Your task to perform on an android device: turn on bluetooth scan Image 0: 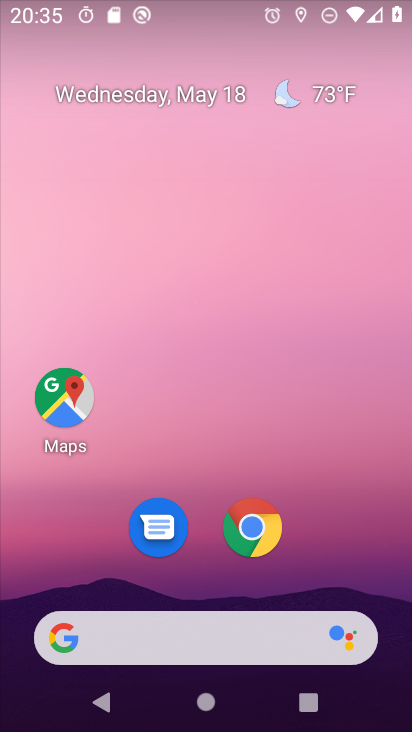
Step 0: click (324, 512)
Your task to perform on an android device: turn on bluetooth scan Image 1: 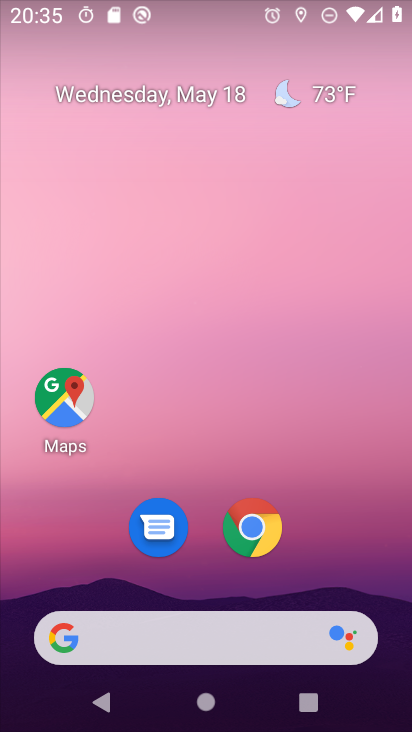
Step 1: drag from (386, 659) to (386, 176)
Your task to perform on an android device: turn on bluetooth scan Image 2: 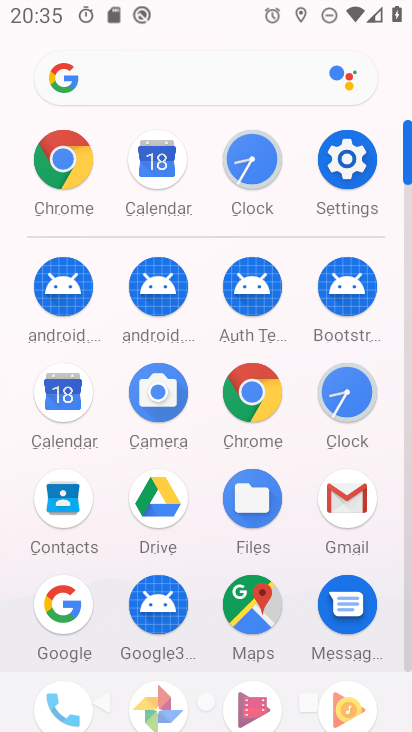
Step 2: click (357, 160)
Your task to perform on an android device: turn on bluetooth scan Image 3: 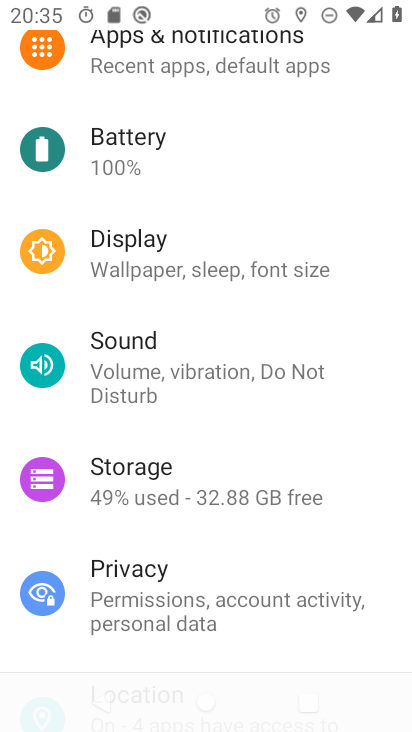
Step 3: drag from (304, 634) to (283, 49)
Your task to perform on an android device: turn on bluetooth scan Image 4: 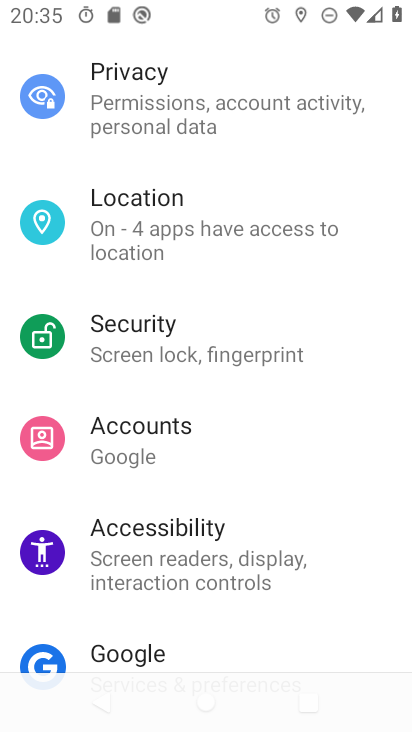
Step 4: click (144, 214)
Your task to perform on an android device: turn on bluetooth scan Image 5: 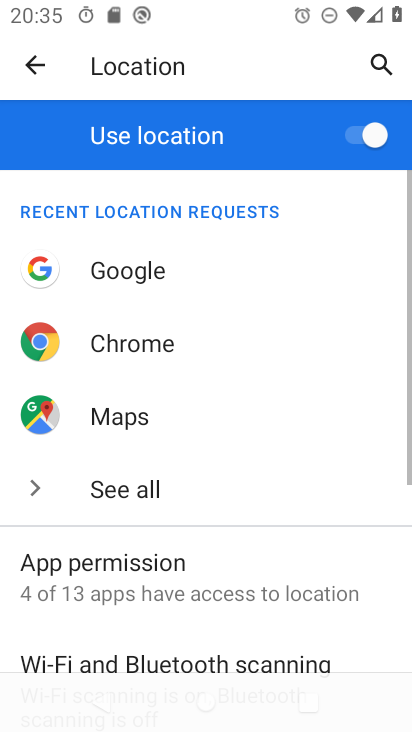
Step 5: drag from (305, 609) to (294, 259)
Your task to perform on an android device: turn on bluetooth scan Image 6: 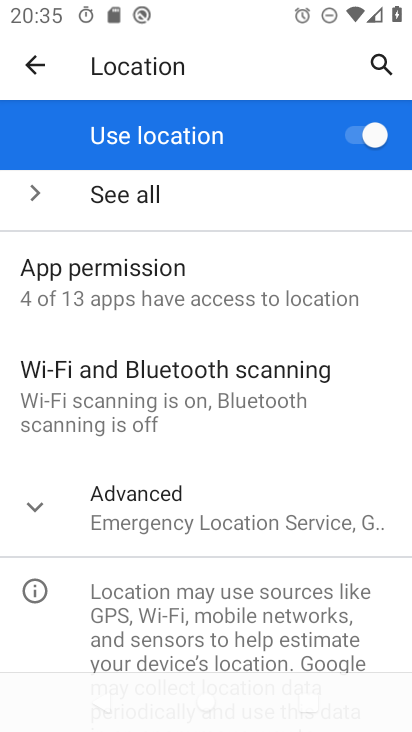
Step 6: click (44, 509)
Your task to perform on an android device: turn on bluetooth scan Image 7: 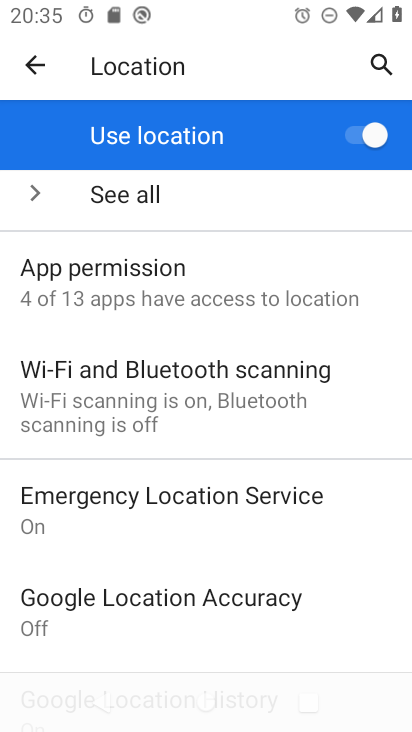
Step 7: click (245, 394)
Your task to perform on an android device: turn on bluetooth scan Image 8: 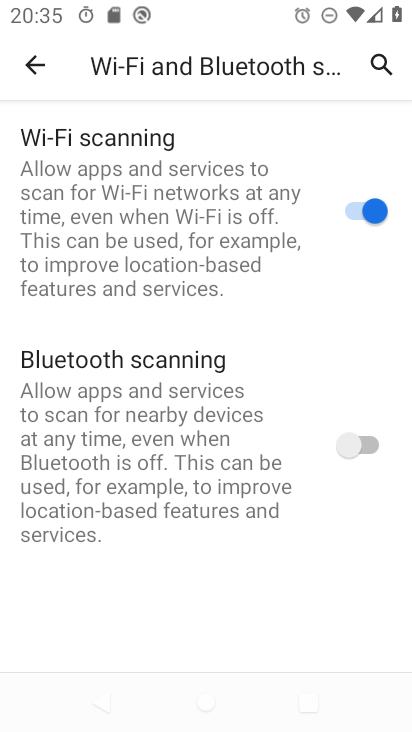
Step 8: click (361, 443)
Your task to perform on an android device: turn on bluetooth scan Image 9: 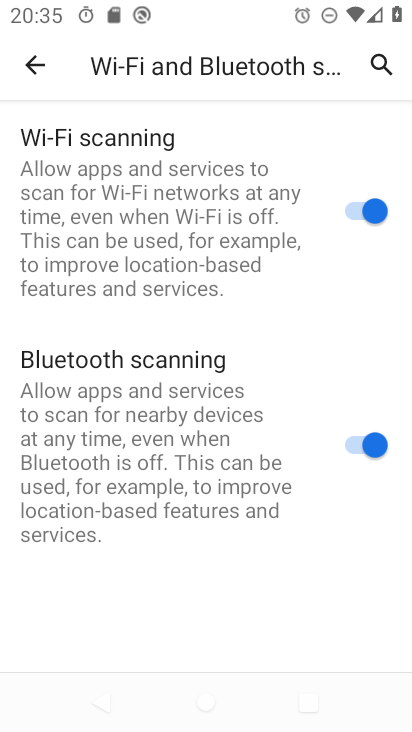
Step 9: task complete